Your task to perform on an android device: Open internet settings Image 0: 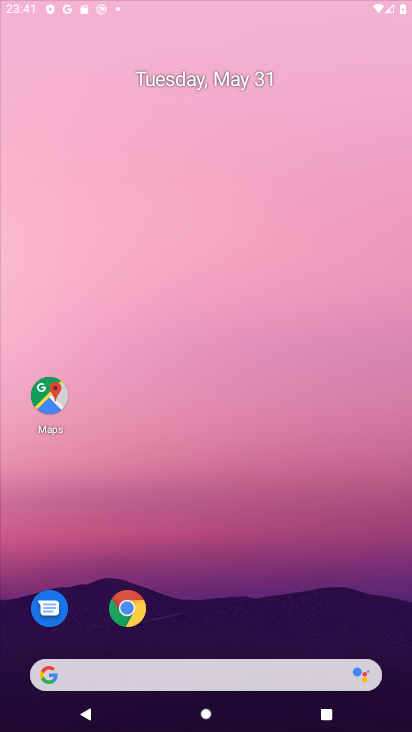
Step 0: press home button
Your task to perform on an android device: Open internet settings Image 1: 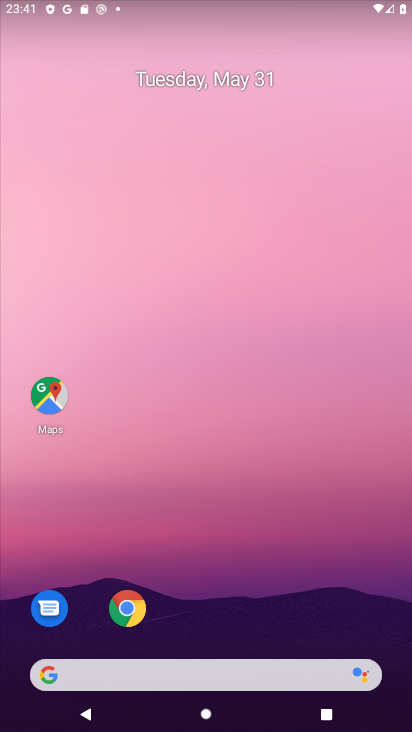
Step 1: drag from (324, 604) to (378, 172)
Your task to perform on an android device: Open internet settings Image 2: 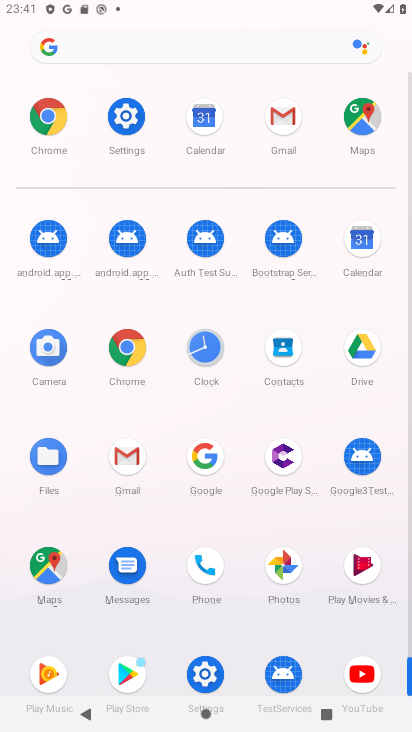
Step 2: click (132, 111)
Your task to perform on an android device: Open internet settings Image 3: 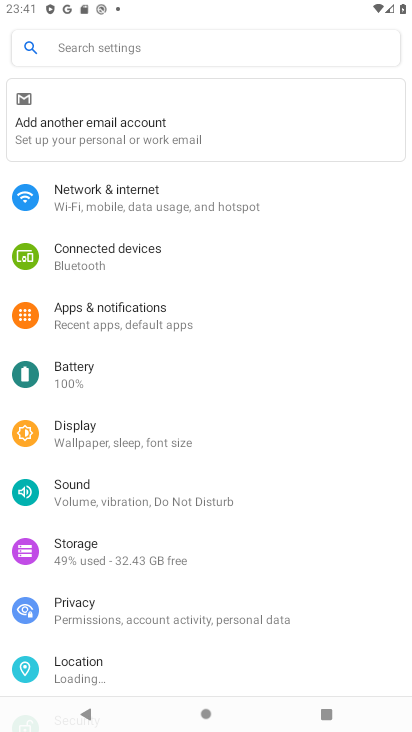
Step 3: click (134, 208)
Your task to perform on an android device: Open internet settings Image 4: 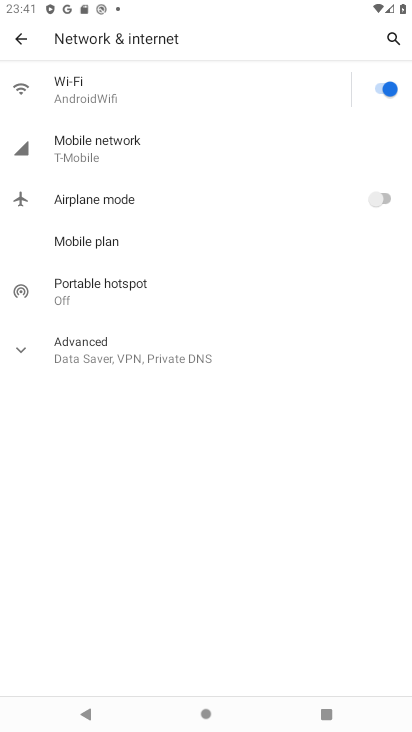
Step 4: task complete